Your task to perform on an android device: open chrome privacy settings Image 0: 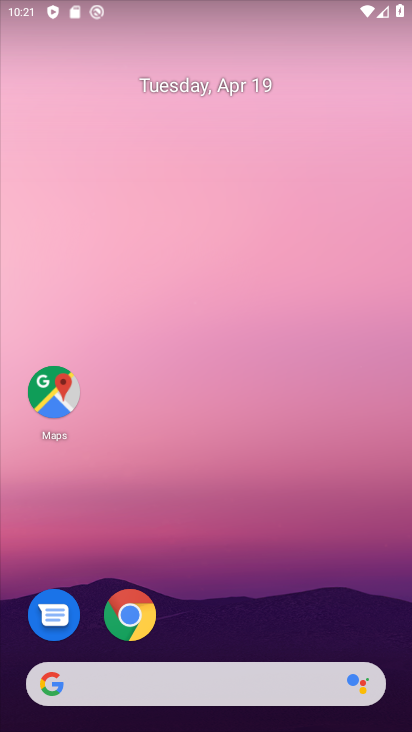
Step 0: click (129, 615)
Your task to perform on an android device: open chrome privacy settings Image 1: 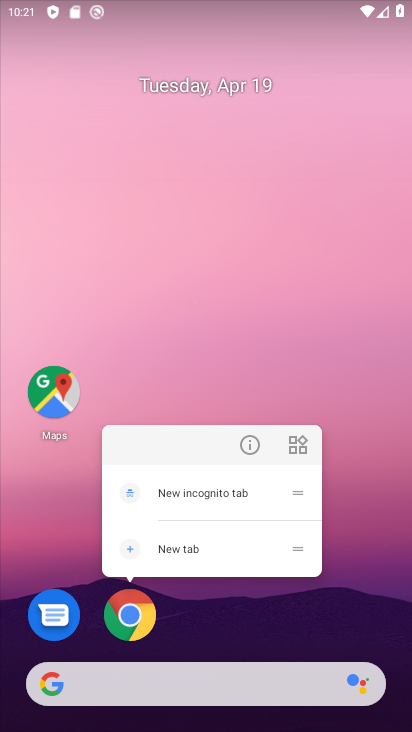
Step 1: click (129, 615)
Your task to perform on an android device: open chrome privacy settings Image 2: 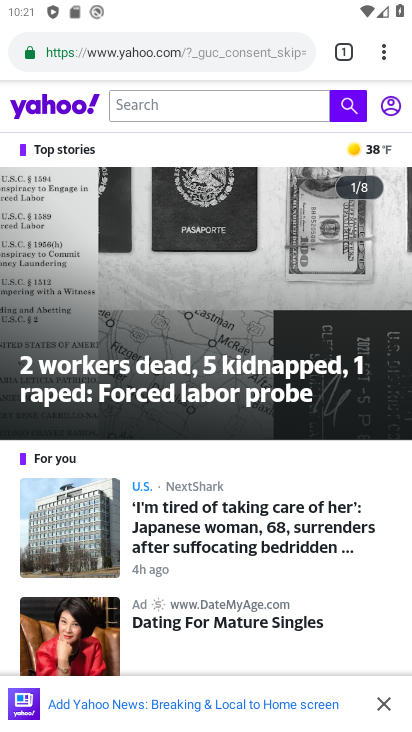
Step 2: click (379, 55)
Your task to perform on an android device: open chrome privacy settings Image 3: 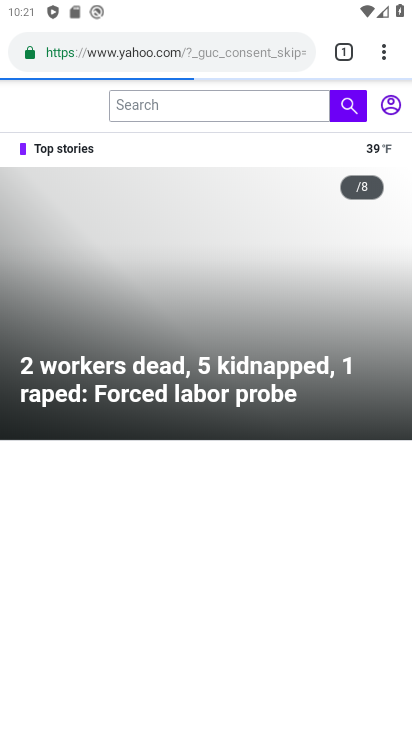
Step 3: click (383, 49)
Your task to perform on an android device: open chrome privacy settings Image 4: 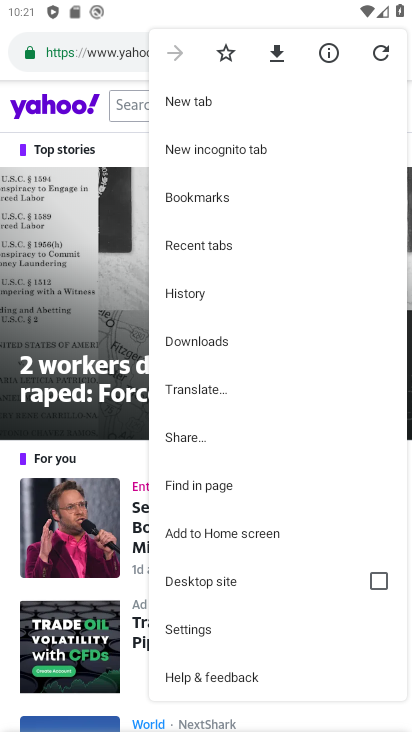
Step 4: click (212, 626)
Your task to perform on an android device: open chrome privacy settings Image 5: 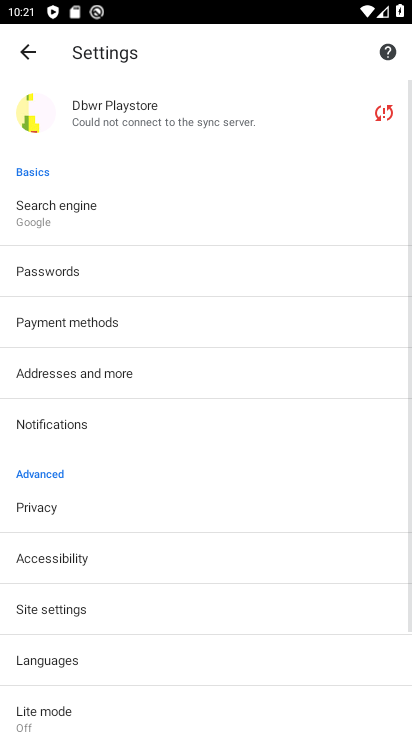
Step 5: click (81, 510)
Your task to perform on an android device: open chrome privacy settings Image 6: 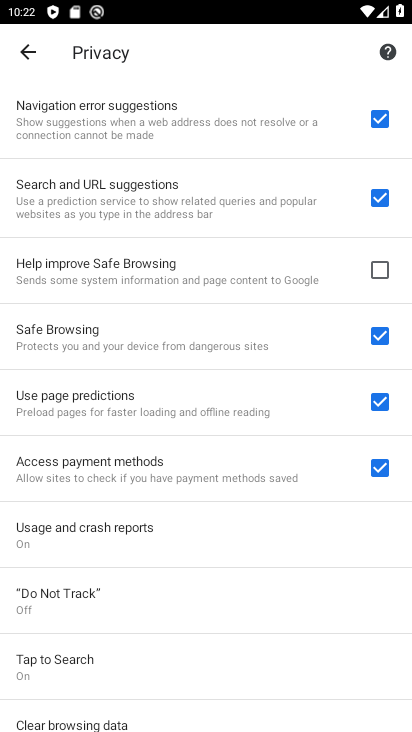
Step 6: task complete